Your task to perform on an android device: open a bookmark in the chrome app Image 0: 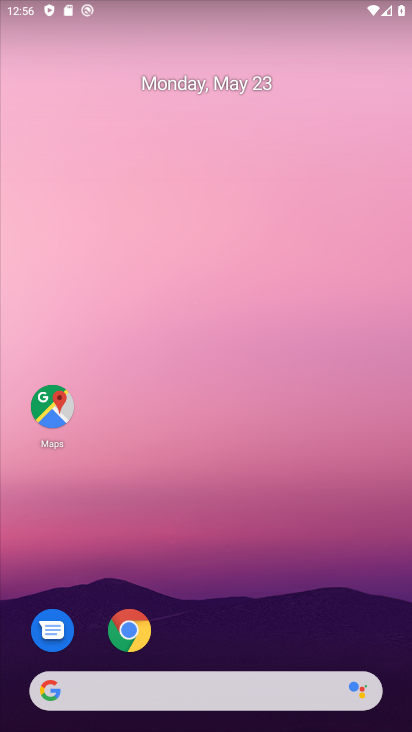
Step 0: drag from (398, 628) to (388, 103)
Your task to perform on an android device: open a bookmark in the chrome app Image 1: 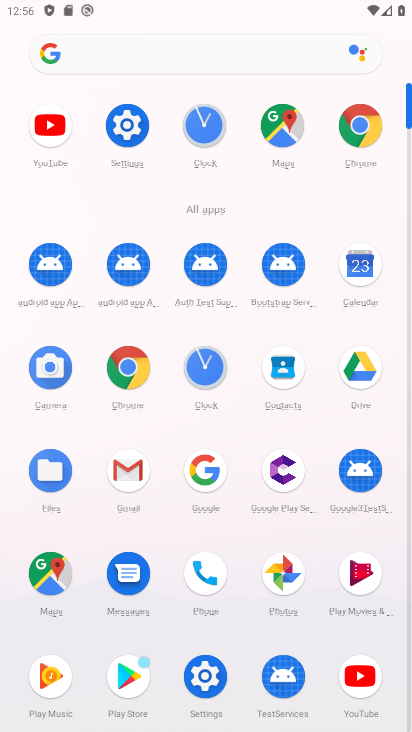
Step 1: click (369, 116)
Your task to perform on an android device: open a bookmark in the chrome app Image 2: 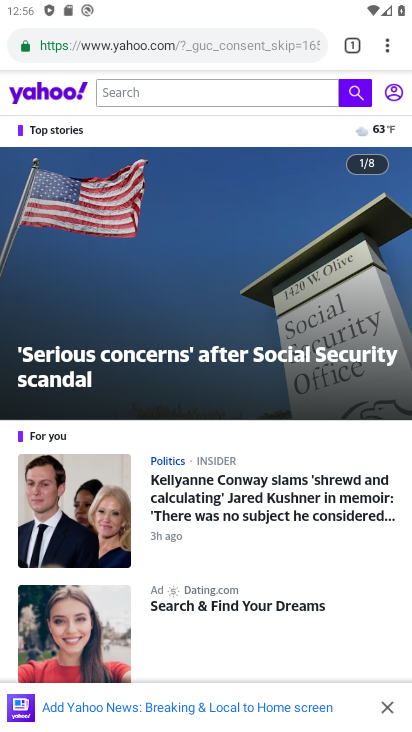
Step 2: task complete